Your task to perform on an android device: Search for Mexican restaurants on Maps Image 0: 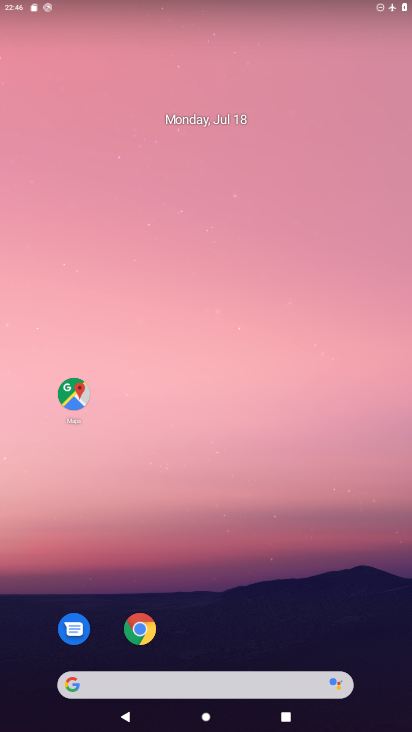
Step 0: drag from (324, 596) to (177, 39)
Your task to perform on an android device: Search for Mexican restaurants on Maps Image 1: 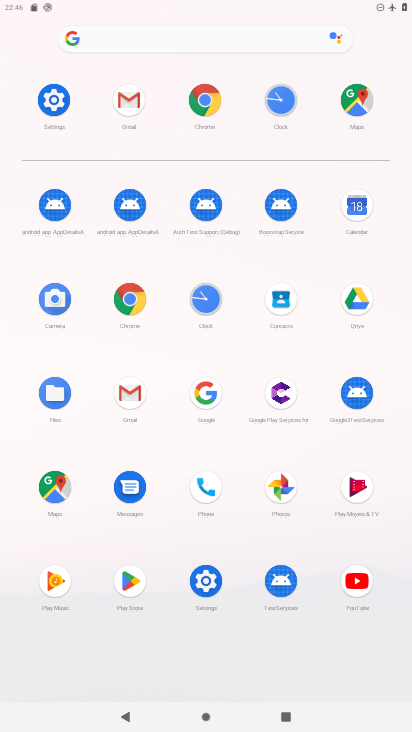
Step 1: click (358, 109)
Your task to perform on an android device: Search for Mexican restaurants on Maps Image 2: 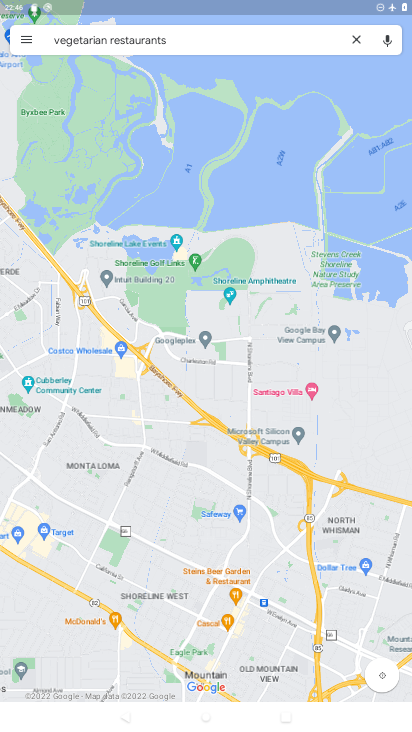
Step 2: click (190, 45)
Your task to perform on an android device: Search for Mexican restaurants on Maps Image 3: 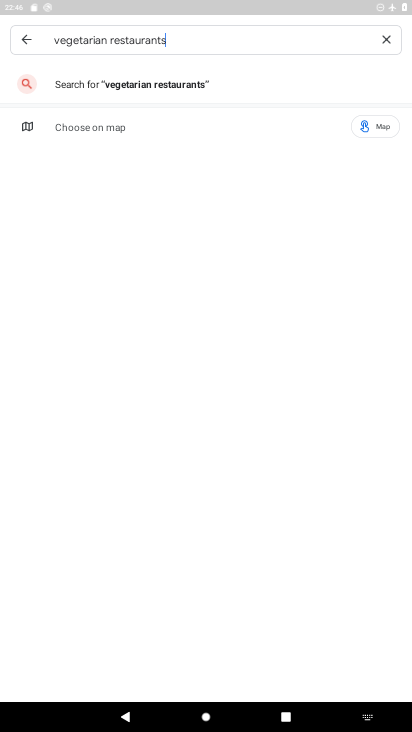
Step 3: click (390, 39)
Your task to perform on an android device: Search for Mexican restaurants on Maps Image 4: 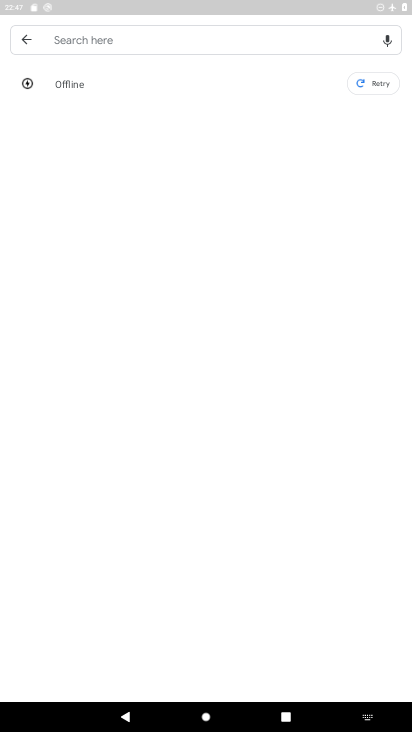
Step 4: type "Mexican restaurants"
Your task to perform on an android device: Search for Mexican restaurants on Maps Image 5: 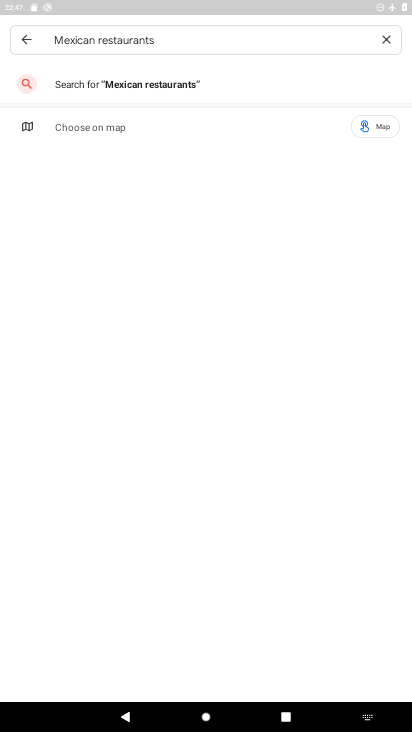
Step 5: press enter
Your task to perform on an android device: Search for Mexican restaurants on Maps Image 6: 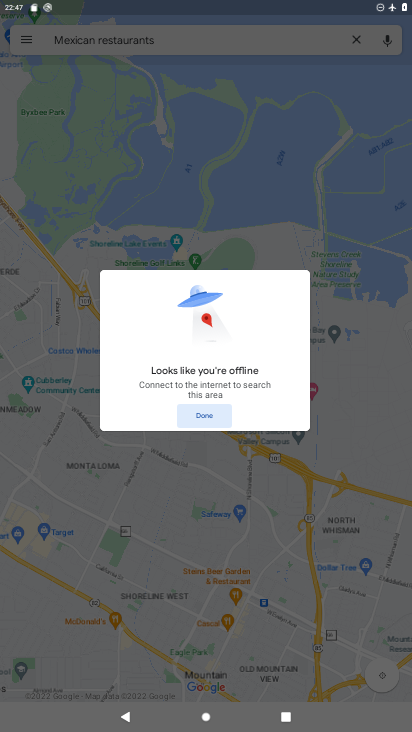
Step 6: task complete